Your task to perform on an android device: turn off location history Image 0: 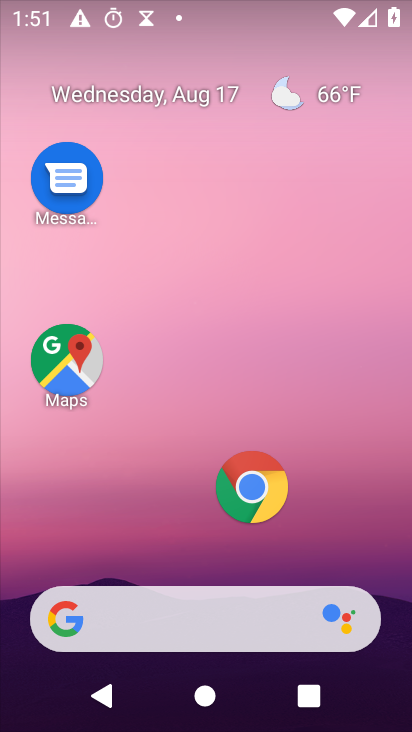
Step 0: press home button
Your task to perform on an android device: turn off location history Image 1: 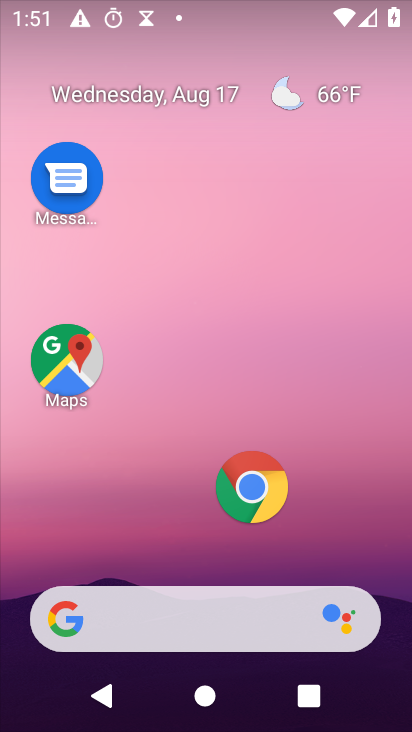
Step 1: drag from (181, 538) to (190, 45)
Your task to perform on an android device: turn off location history Image 2: 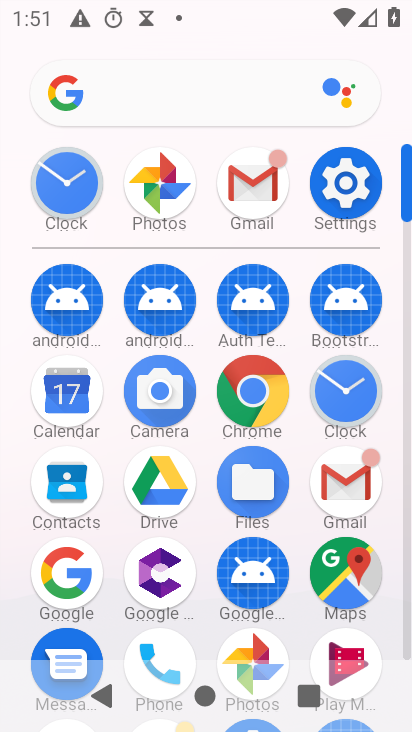
Step 2: click (335, 192)
Your task to perform on an android device: turn off location history Image 3: 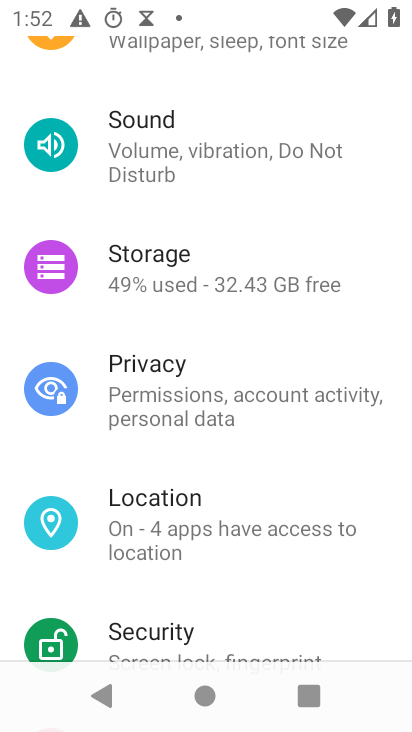
Step 3: click (110, 491)
Your task to perform on an android device: turn off location history Image 4: 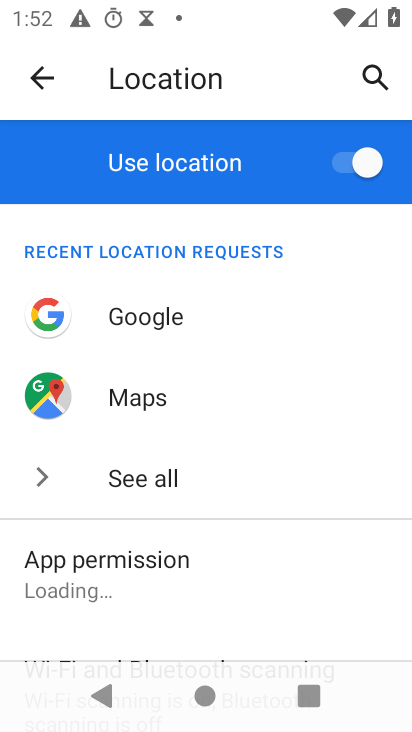
Step 4: drag from (326, 549) to (295, 154)
Your task to perform on an android device: turn off location history Image 5: 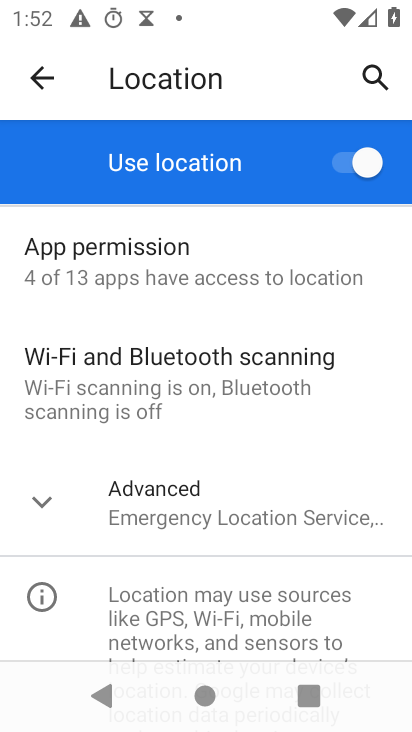
Step 5: click (166, 502)
Your task to perform on an android device: turn off location history Image 6: 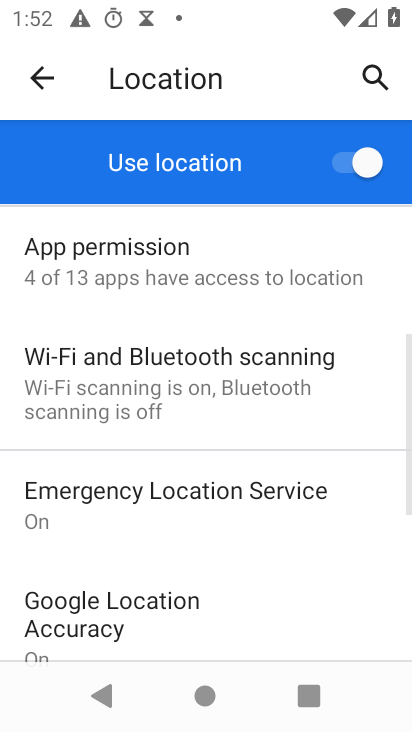
Step 6: drag from (267, 590) to (265, 281)
Your task to perform on an android device: turn off location history Image 7: 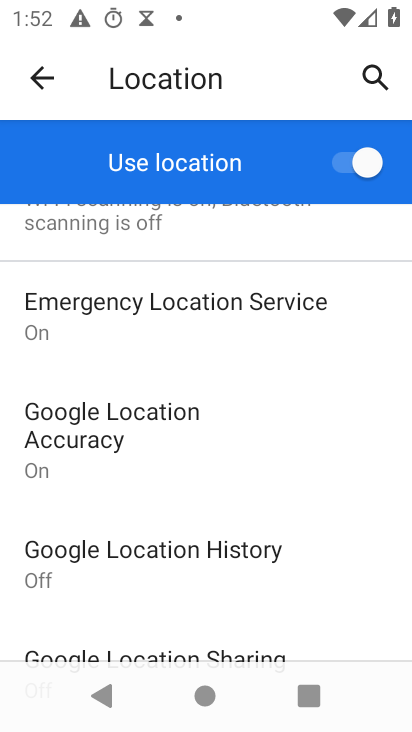
Step 7: click (167, 562)
Your task to perform on an android device: turn off location history Image 8: 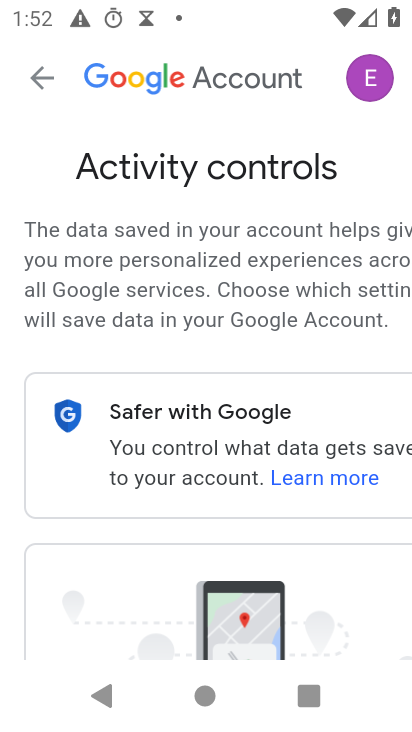
Step 8: drag from (350, 542) to (409, 66)
Your task to perform on an android device: turn off location history Image 9: 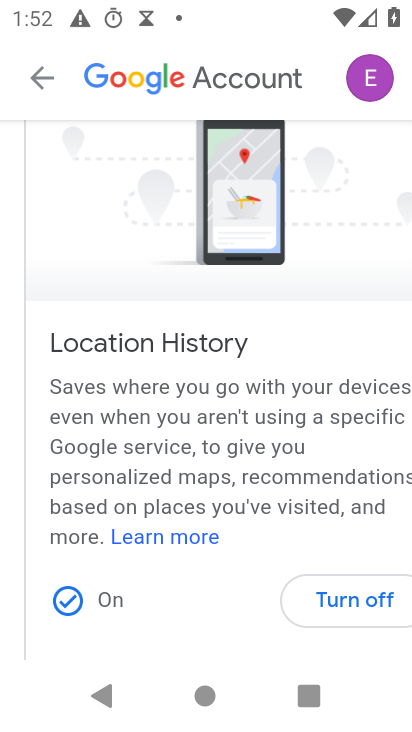
Step 9: click (349, 607)
Your task to perform on an android device: turn off location history Image 10: 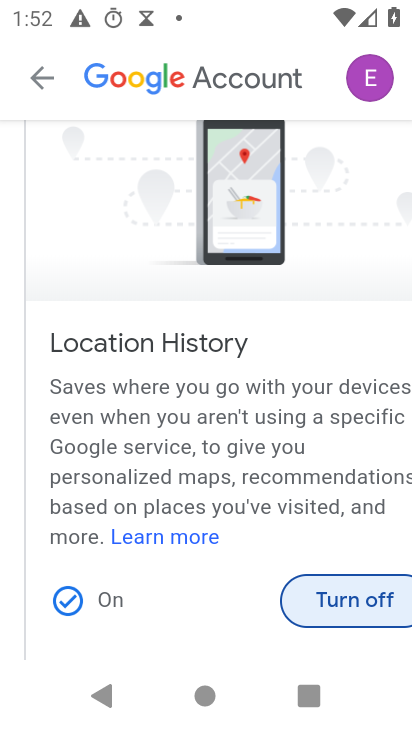
Step 10: click (309, 585)
Your task to perform on an android device: turn off location history Image 11: 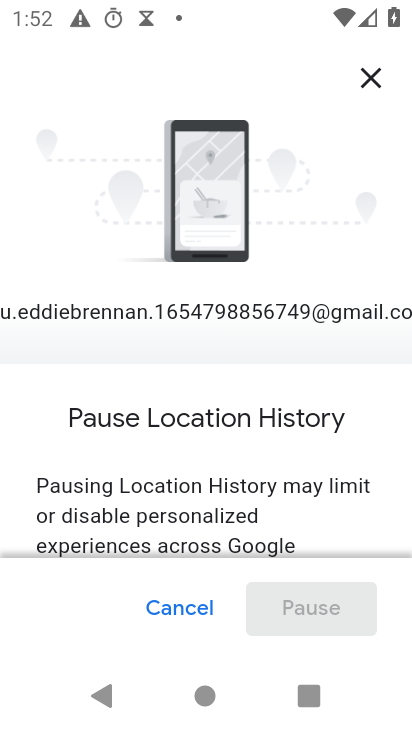
Step 11: drag from (334, 499) to (348, 63)
Your task to perform on an android device: turn off location history Image 12: 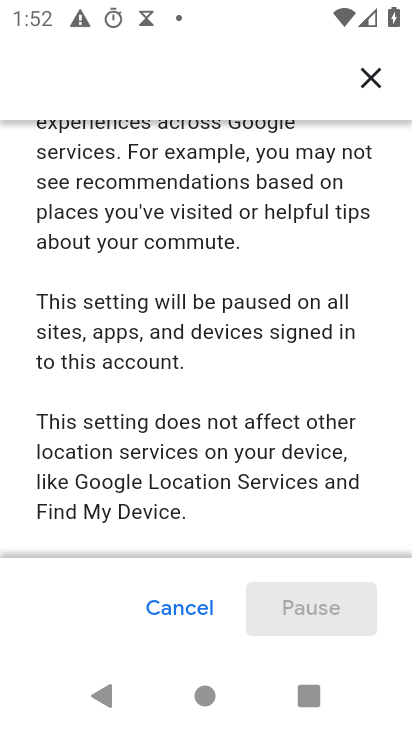
Step 12: drag from (355, 488) to (376, 95)
Your task to perform on an android device: turn off location history Image 13: 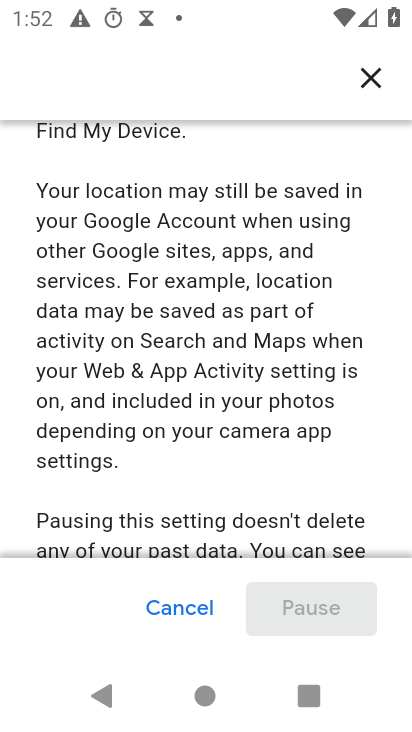
Step 13: drag from (325, 472) to (397, 133)
Your task to perform on an android device: turn off location history Image 14: 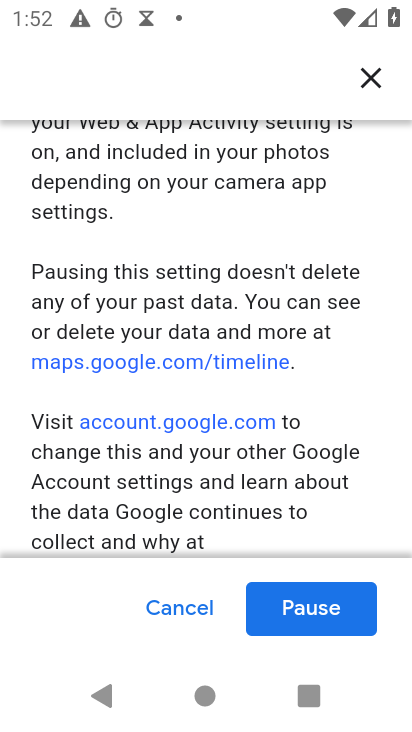
Step 14: click (306, 615)
Your task to perform on an android device: turn off location history Image 15: 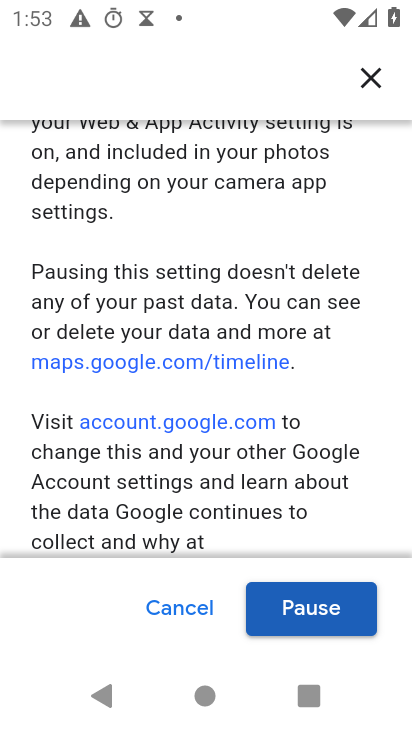
Step 15: click (301, 613)
Your task to perform on an android device: turn off location history Image 16: 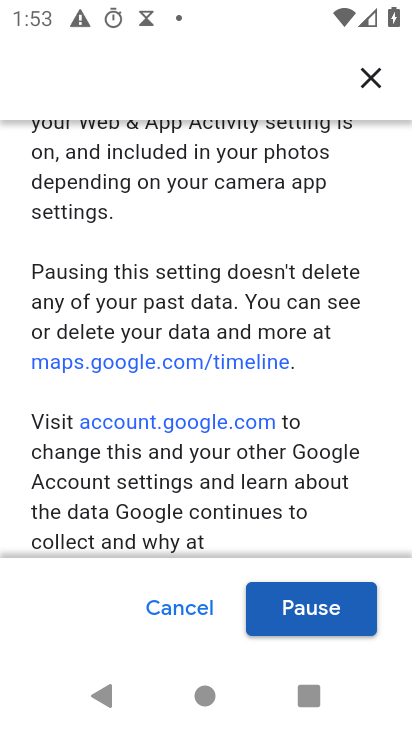
Step 16: click (308, 610)
Your task to perform on an android device: turn off location history Image 17: 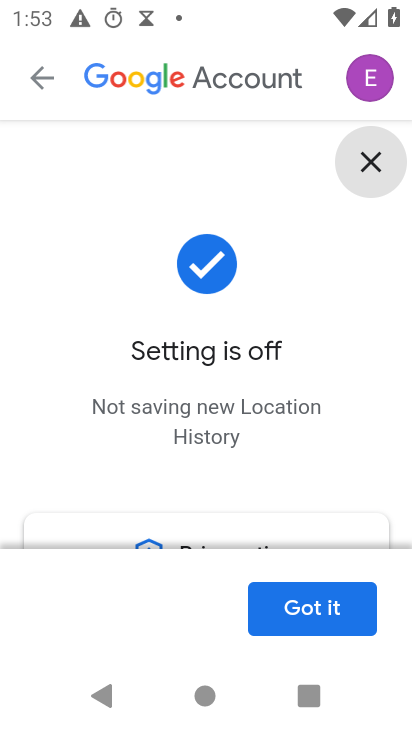
Step 17: click (291, 631)
Your task to perform on an android device: turn off location history Image 18: 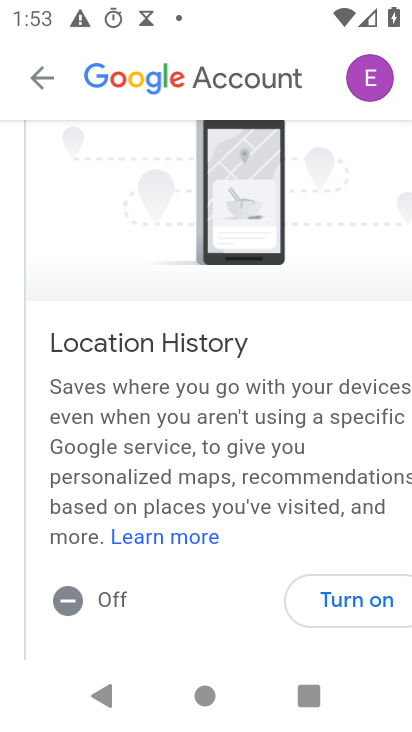
Step 18: task complete